Your task to perform on an android device: turn off notifications in google photos Image 0: 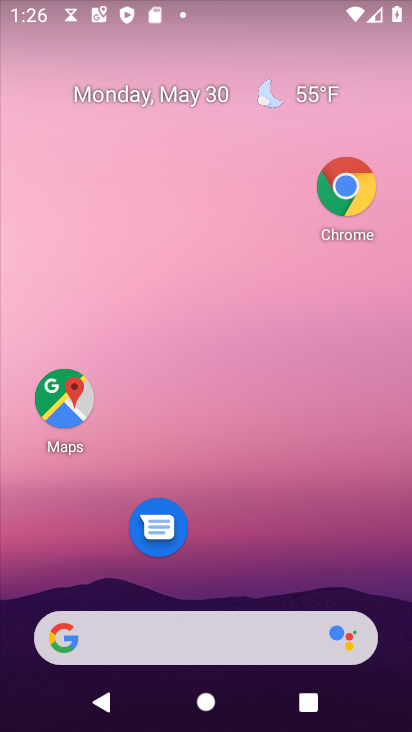
Step 0: drag from (188, 440) to (198, 157)
Your task to perform on an android device: turn off notifications in google photos Image 1: 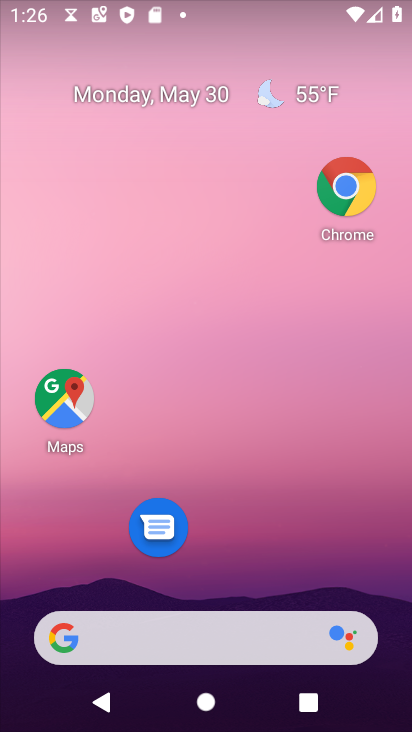
Step 1: drag from (209, 587) to (229, 222)
Your task to perform on an android device: turn off notifications in google photos Image 2: 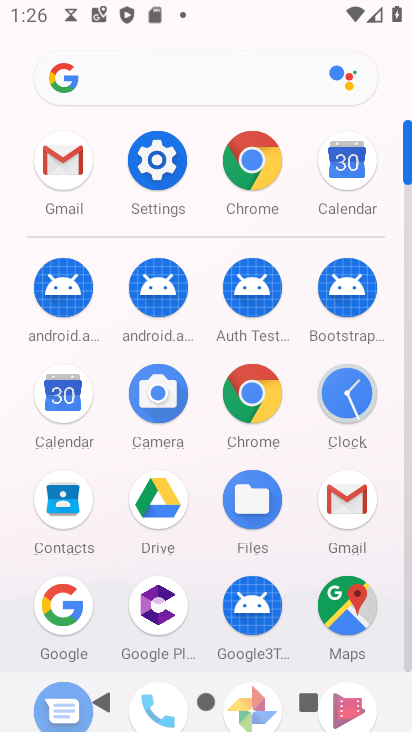
Step 2: drag from (207, 535) to (209, 329)
Your task to perform on an android device: turn off notifications in google photos Image 3: 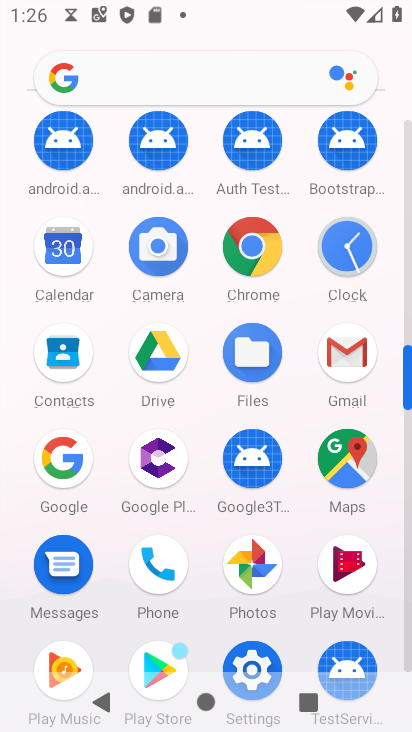
Step 3: click (257, 572)
Your task to perform on an android device: turn off notifications in google photos Image 4: 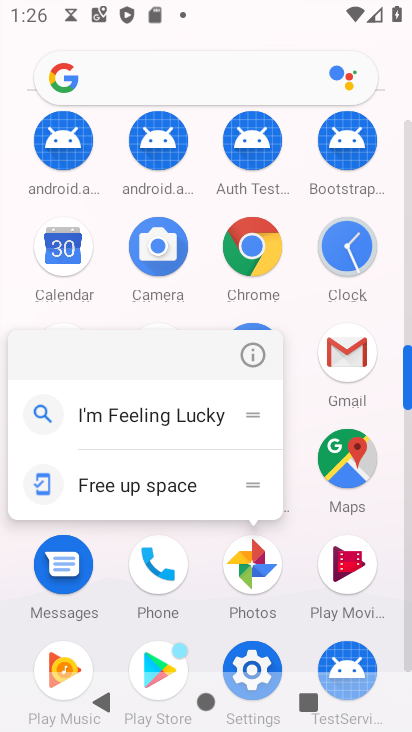
Step 4: click (244, 360)
Your task to perform on an android device: turn off notifications in google photos Image 5: 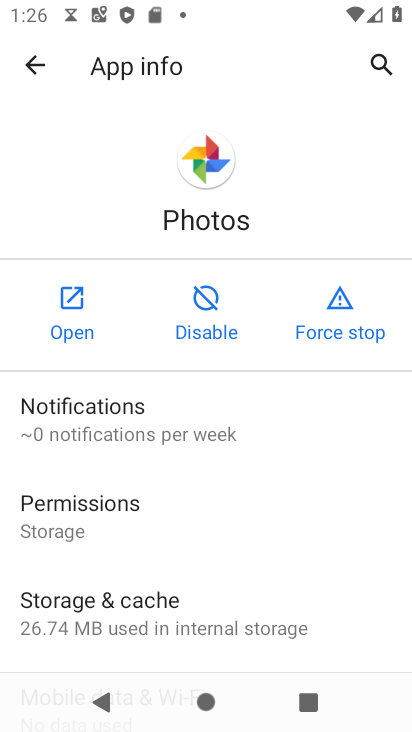
Step 5: click (67, 299)
Your task to perform on an android device: turn off notifications in google photos Image 6: 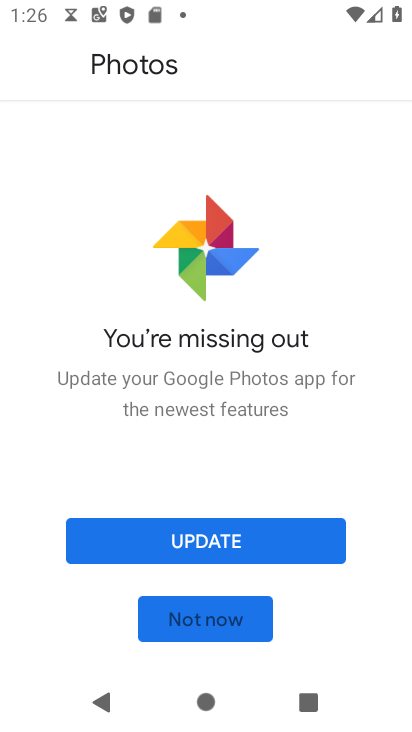
Step 6: click (212, 622)
Your task to perform on an android device: turn off notifications in google photos Image 7: 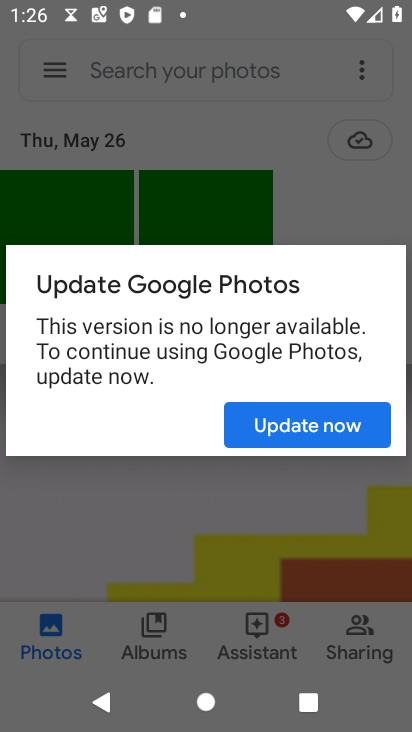
Step 7: click (296, 433)
Your task to perform on an android device: turn off notifications in google photos Image 8: 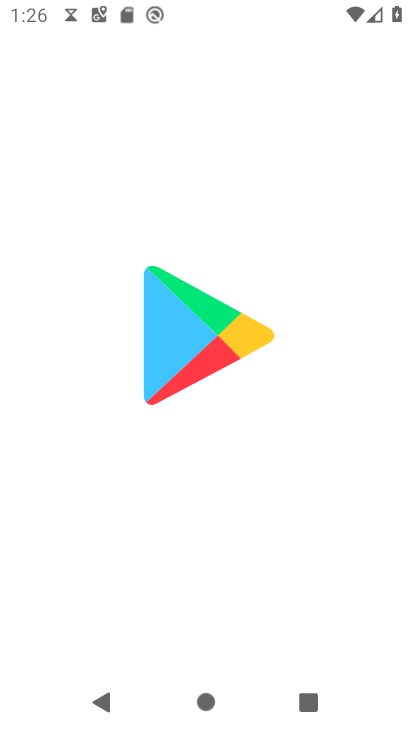
Step 8: drag from (248, 343) to (311, 102)
Your task to perform on an android device: turn off notifications in google photos Image 9: 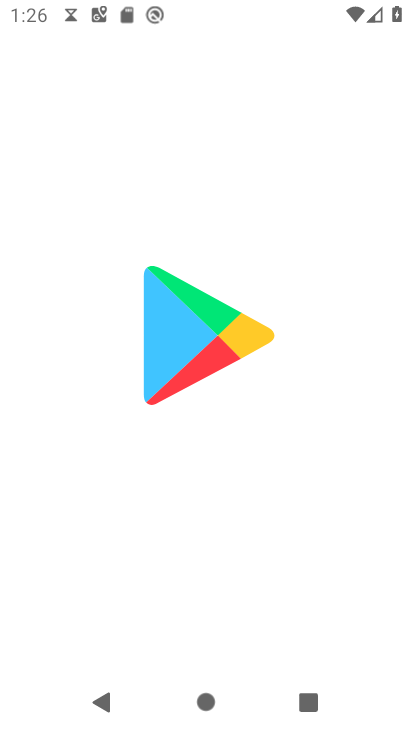
Step 9: drag from (305, 93) to (301, 510)
Your task to perform on an android device: turn off notifications in google photos Image 10: 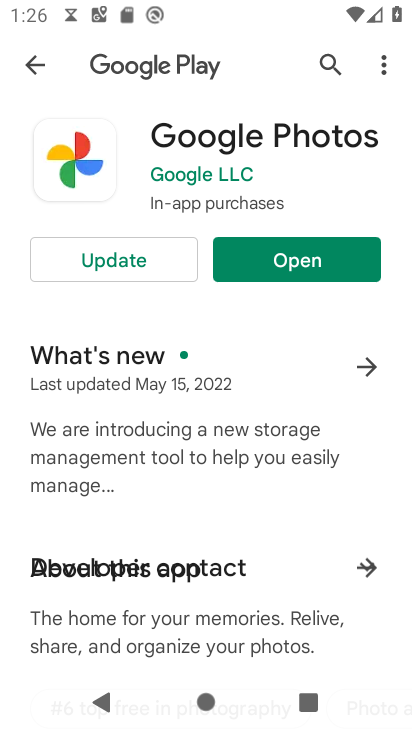
Step 10: press back button
Your task to perform on an android device: turn off notifications in google photos Image 11: 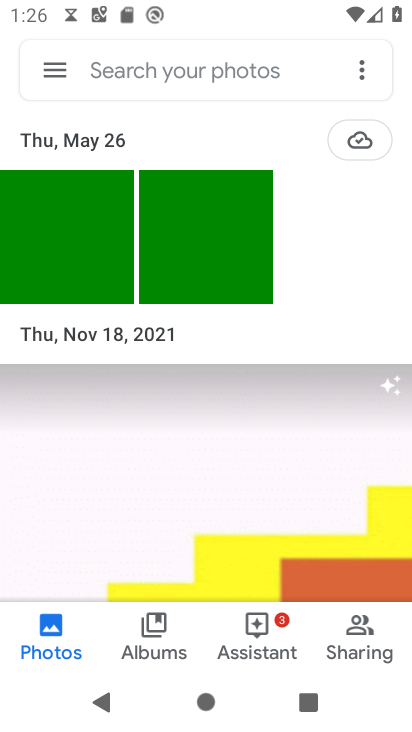
Step 11: drag from (288, 521) to (296, 306)
Your task to perform on an android device: turn off notifications in google photos Image 12: 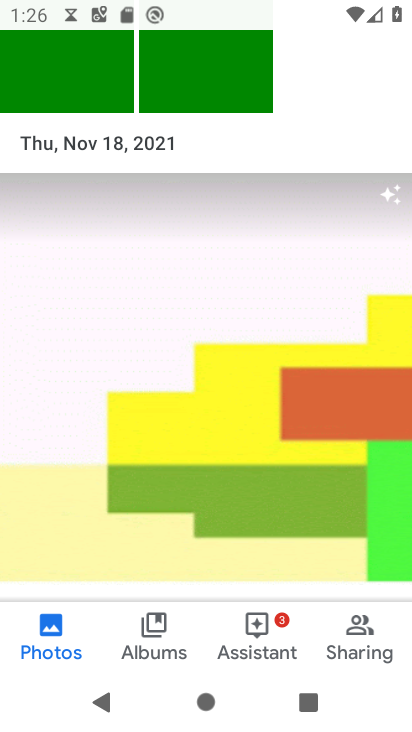
Step 12: drag from (280, 216) to (269, 622)
Your task to perform on an android device: turn off notifications in google photos Image 13: 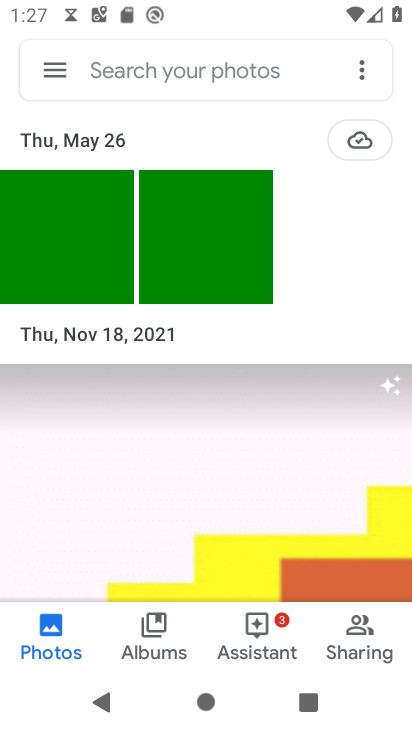
Step 13: click (49, 76)
Your task to perform on an android device: turn off notifications in google photos Image 14: 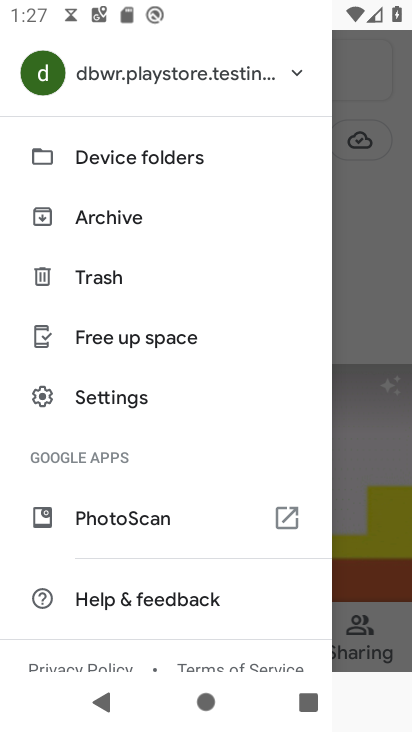
Step 14: drag from (135, 467) to (188, 141)
Your task to perform on an android device: turn off notifications in google photos Image 15: 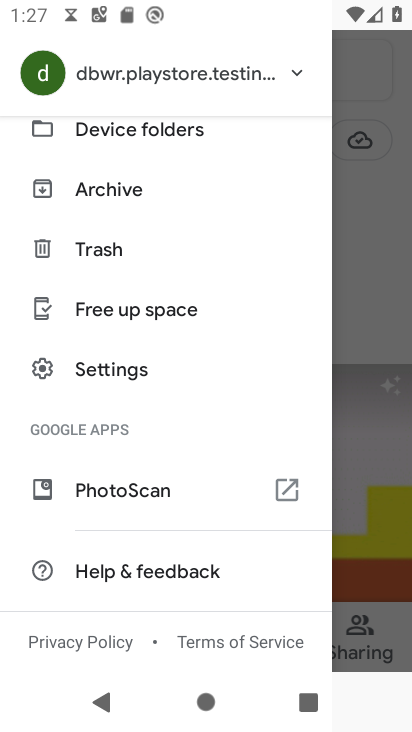
Step 15: click (122, 376)
Your task to perform on an android device: turn off notifications in google photos Image 16: 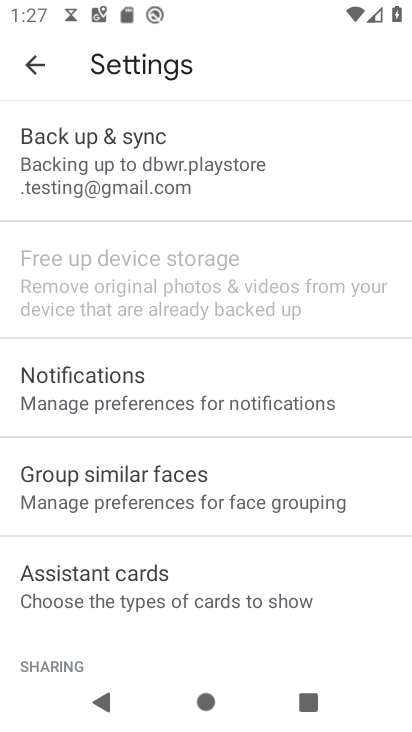
Step 16: click (164, 397)
Your task to perform on an android device: turn off notifications in google photos Image 17: 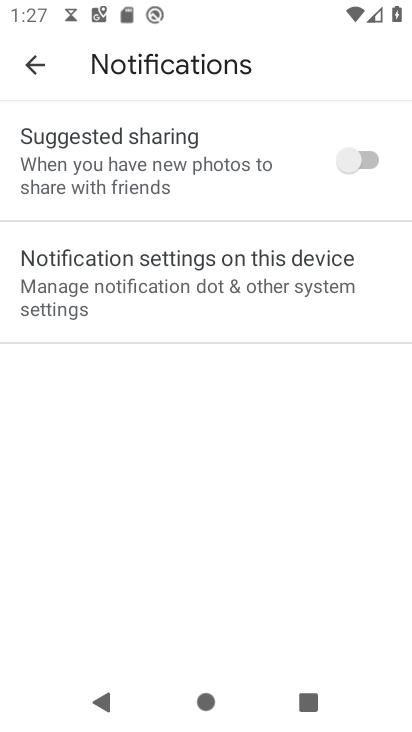
Step 17: drag from (182, 440) to (255, 96)
Your task to perform on an android device: turn off notifications in google photos Image 18: 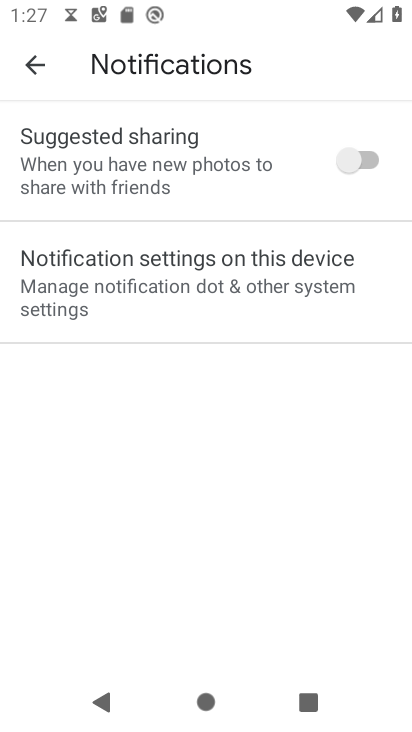
Step 18: drag from (219, 107) to (238, 382)
Your task to perform on an android device: turn off notifications in google photos Image 19: 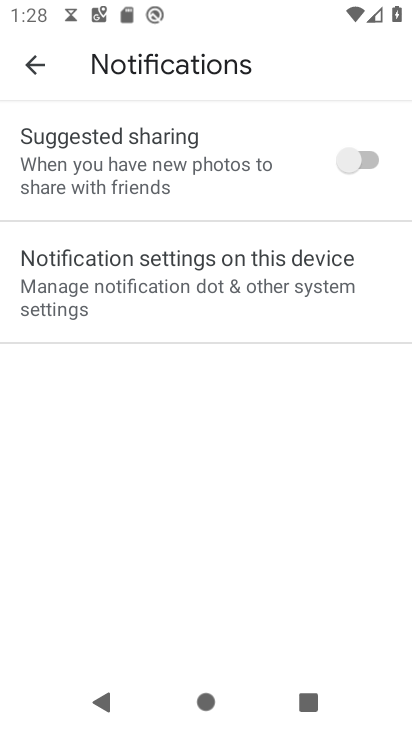
Step 19: click (110, 279)
Your task to perform on an android device: turn off notifications in google photos Image 20: 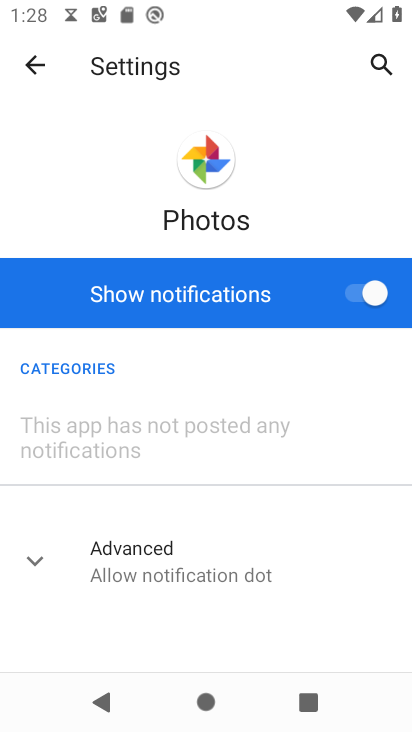
Step 20: click (353, 299)
Your task to perform on an android device: turn off notifications in google photos Image 21: 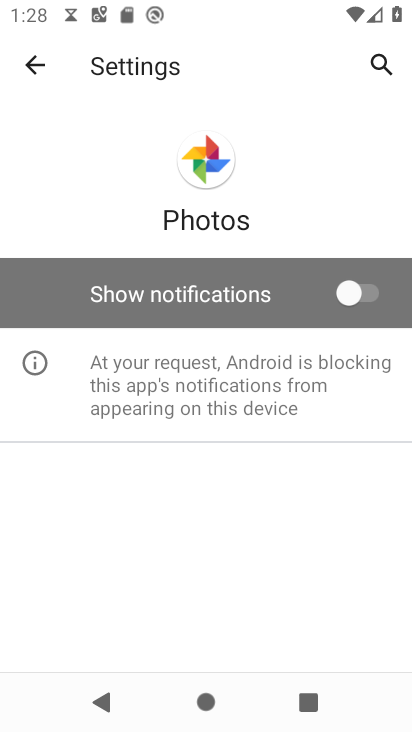
Step 21: task complete